Your task to perform on an android device: turn off javascript in the chrome app Image 0: 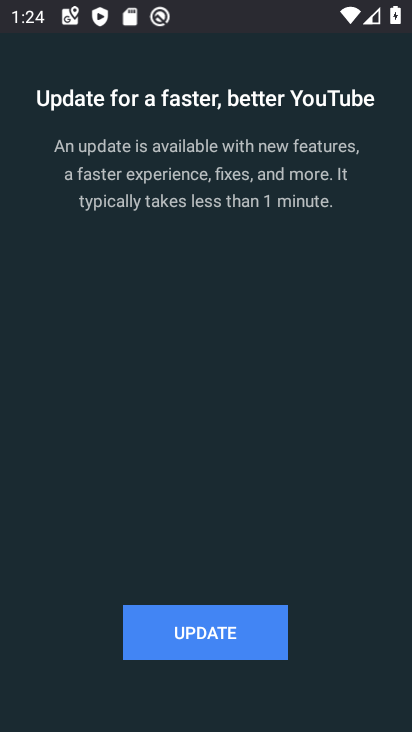
Step 0: press home button
Your task to perform on an android device: turn off javascript in the chrome app Image 1: 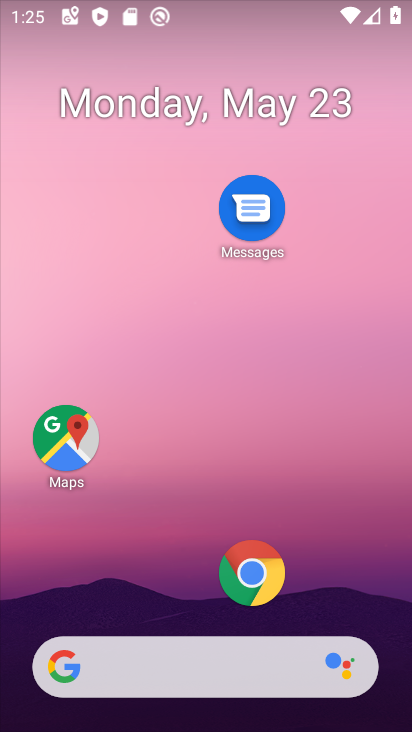
Step 1: drag from (149, 540) to (132, 133)
Your task to perform on an android device: turn off javascript in the chrome app Image 2: 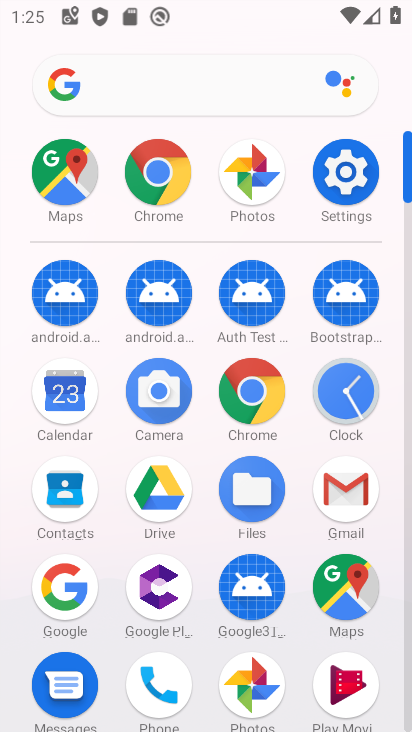
Step 2: click (158, 178)
Your task to perform on an android device: turn off javascript in the chrome app Image 3: 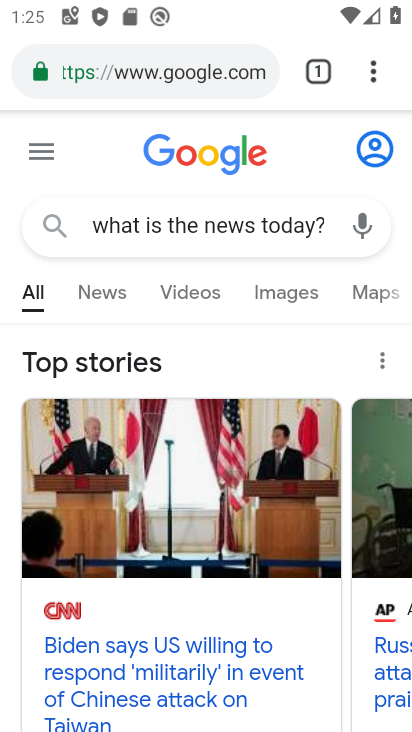
Step 3: click (377, 77)
Your task to perform on an android device: turn off javascript in the chrome app Image 4: 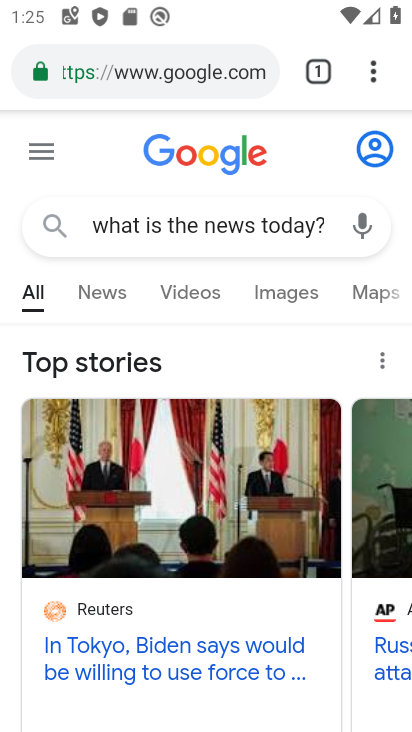
Step 4: click (371, 65)
Your task to perform on an android device: turn off javascript in the chrome app Image 5: 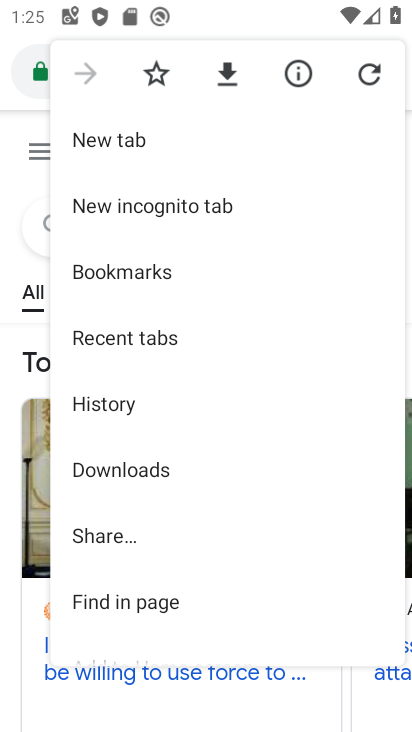
Step 5: drag from (236, 496) to (245, 198)
Your task to perform on an android device: turn off javascript in the chrome app Image 6: 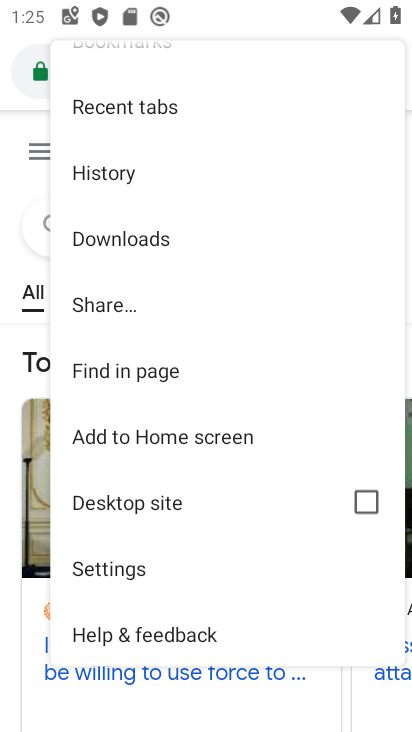
Step 6: click (118, 575)
Your task to perform on an android device: turn off javascript in the chrome app Image 7: 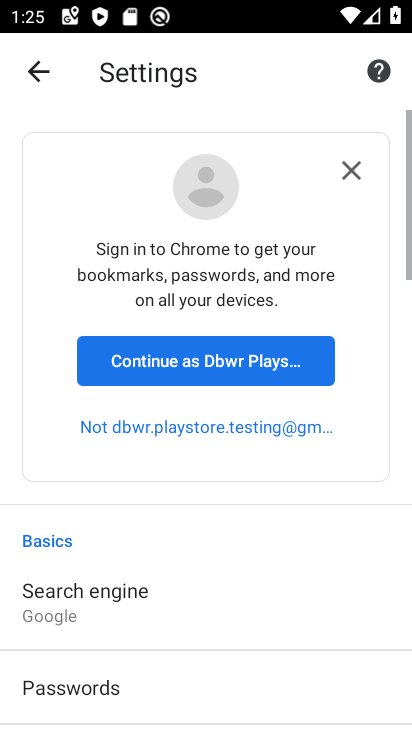
Step 7: drag from (244, 572) to (264, 182)
Your task to perform on an android device: turn off javascript in the chrome app Image 8: 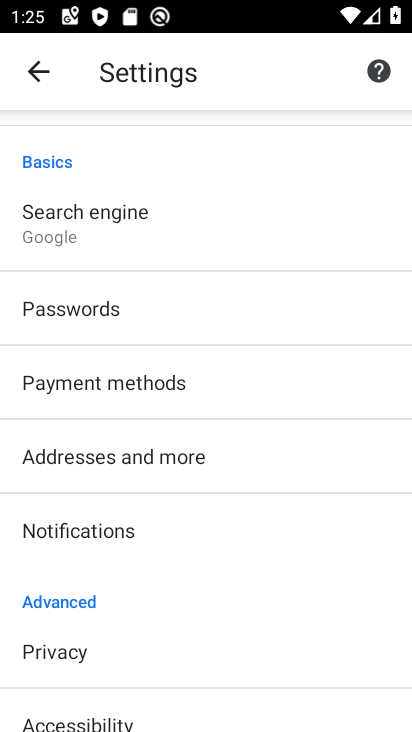
Step 8: drag from (249, 552) to (256, 73)
Your task to perform on an android device: turn off javascript in the chrome app Image 9: 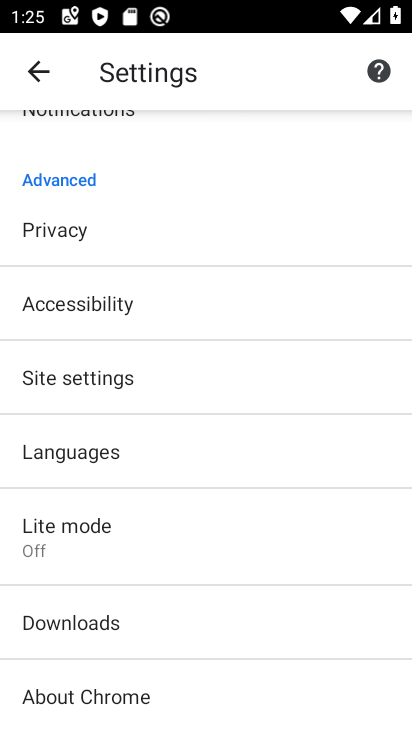
Step 9: click (203, 387)
Your task to perform on an android device: turn off javascript in the chrome app Image 10: 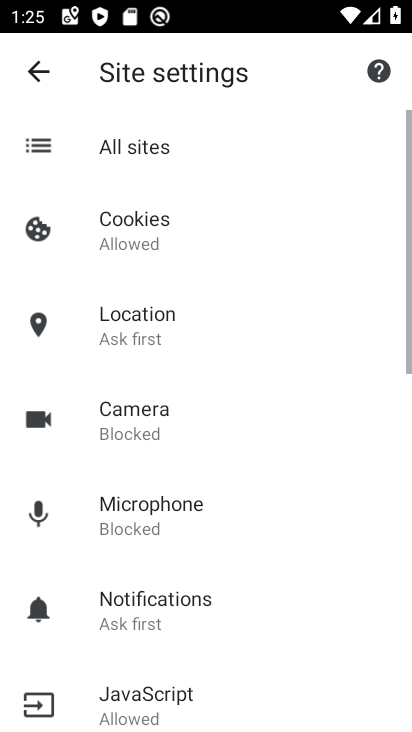
Step 10: drag from (230, 515) to (236, 102)
Your task to perform on an android device: turn off javascript in the chrome app Image 11: 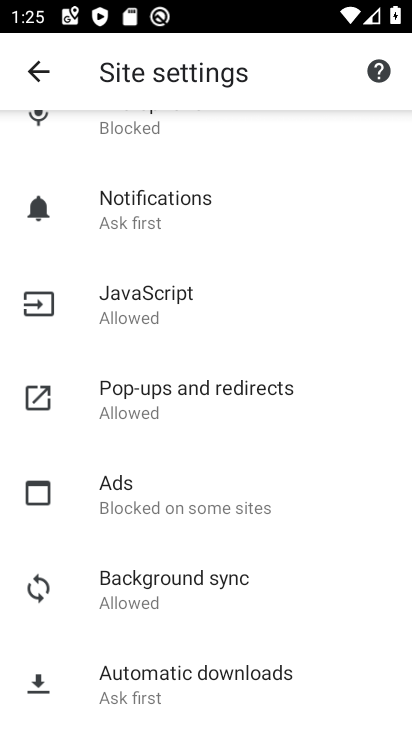
Step 11: click (180, 324)
Your task to perform on an android device: turn off javascript in the chrome app Image 12: 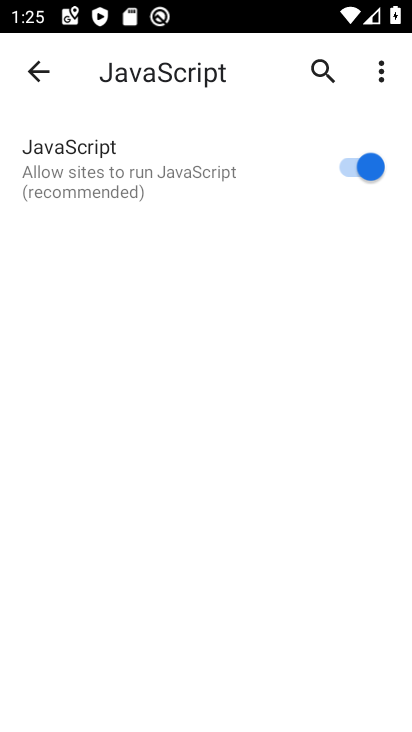
Step 12: click (360, 166)
Your task to perform on an android device: turn off javascript in the chrome app Image 13: 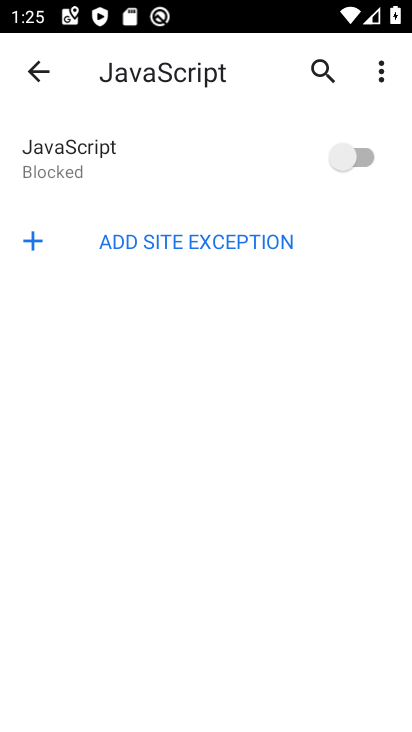
Step 13: task complete